Your task to perform on an android device: turn vacation reply on in the gmail app Image 0: 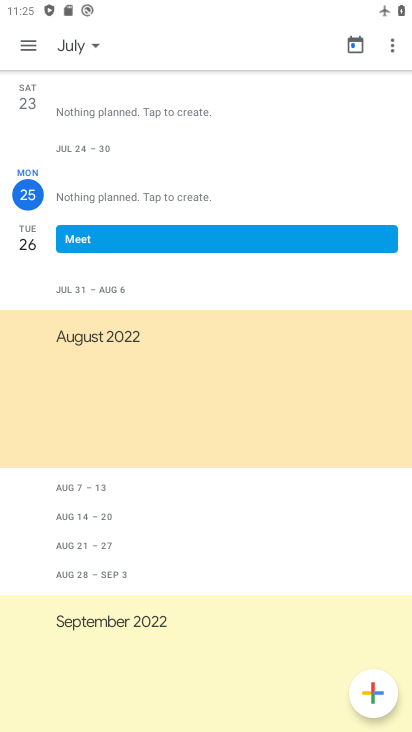
Step 0: press back button
Your task to perform on an android device: turn vacation reply on in the gmail app Image 1: 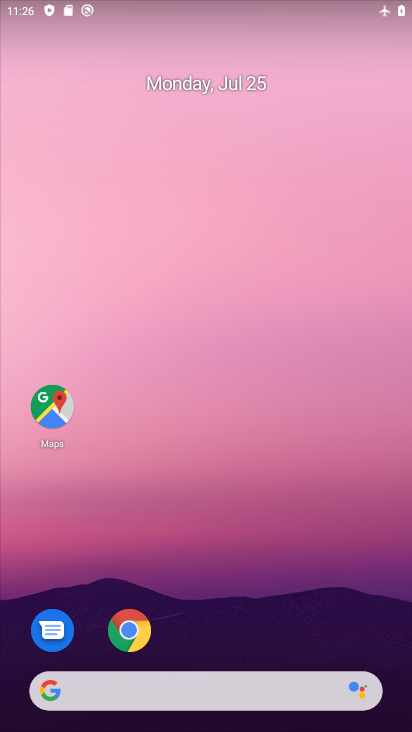
Step 1: drag from (228, 652) to (242, 276)
Your task to perform on an android device: turn vacation reply on in the gmail app Image 2: 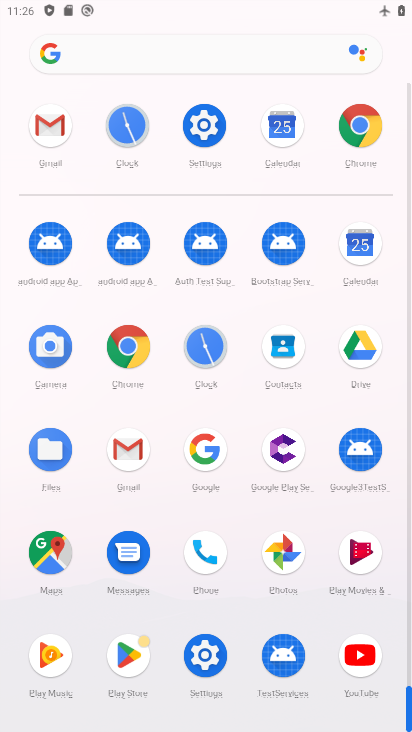
Step 2: click (135, 449)
Your task to perform on an android device: turn vacation reply on in the gmail app Image 3: 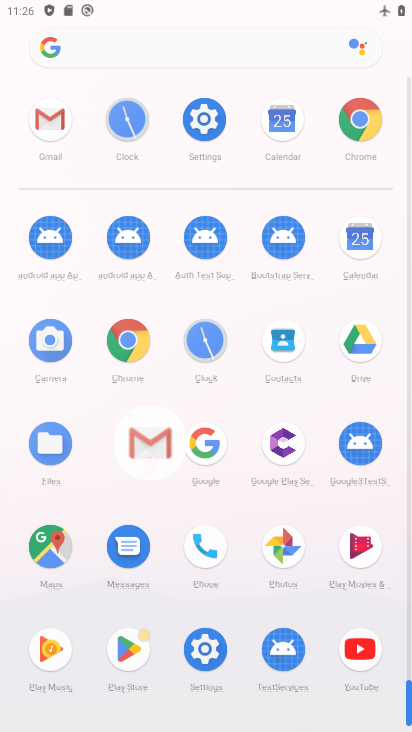
Step 3: click (134, 459)
Your task to perform on an android device: turn vacation reply on in the gmail app Image 4: 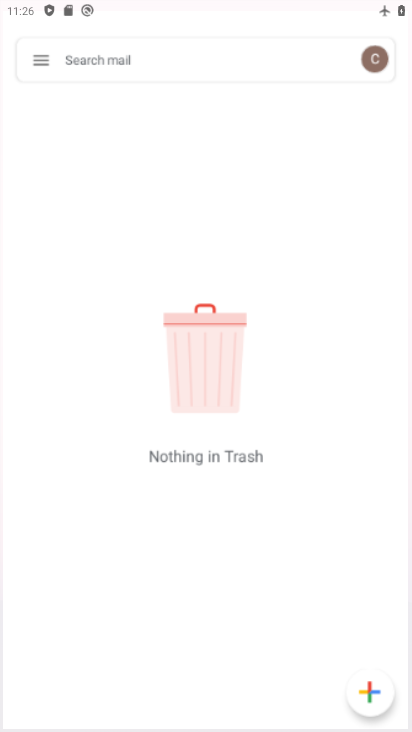
Step 4: click (138, 456)
Your task to perform on an android device: turn vacation reply on in the gmail app Image 5: 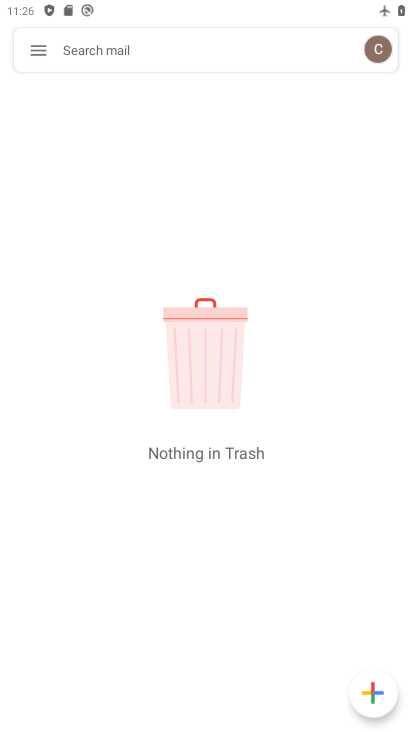
Step 5: click (139, 453)
Your task to perform on an android device: turn vacation reply on in the gmail app Image 6: 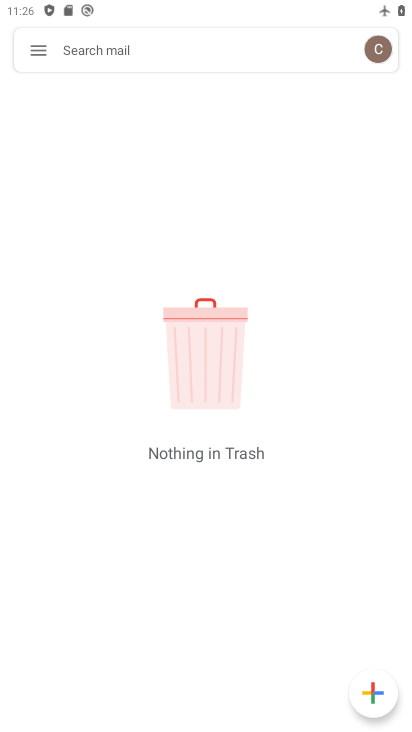
Step 6: click (43, 51)
Your task to perform on an android device: turn vacation reply on in the gmail app Image 7: 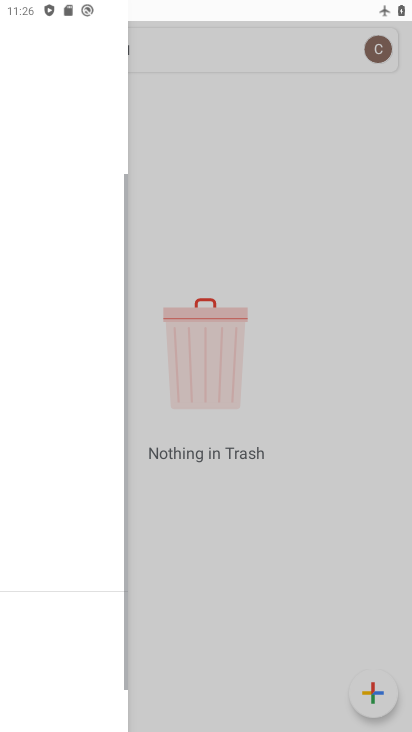
Step 7: click (37, 51)
Your task to perform on an android device: turn vacation reply on in the gmail app Image 8: 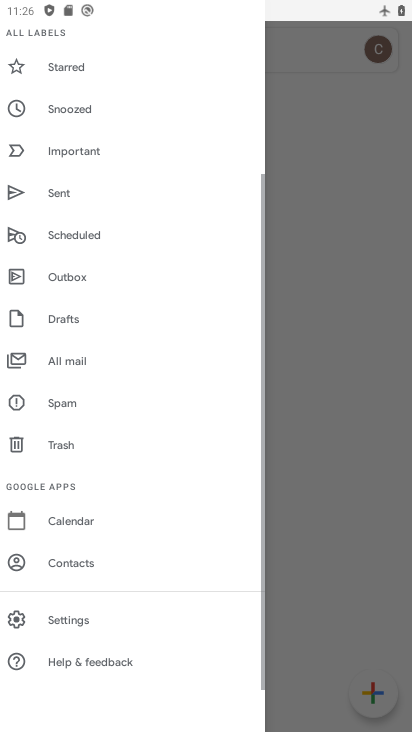
Step 8: click (37, 51)
Your task to perform on an android device: turn vacation reply on in the gmail app Image 9: 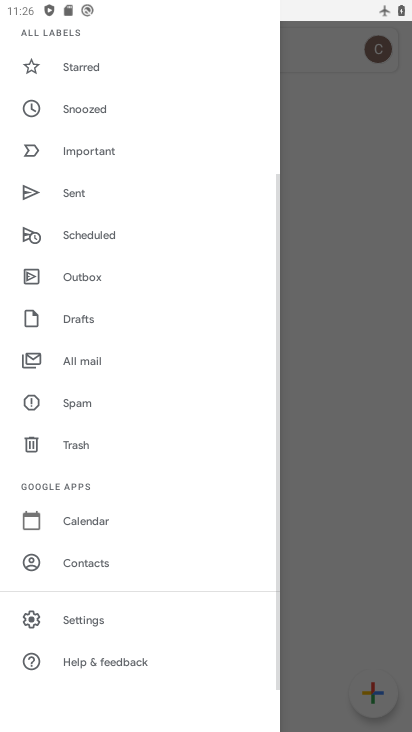
Step 9: click (70, 618)
Your task to perform on an android device: turn vacation reply on in the gmail app Image 10: 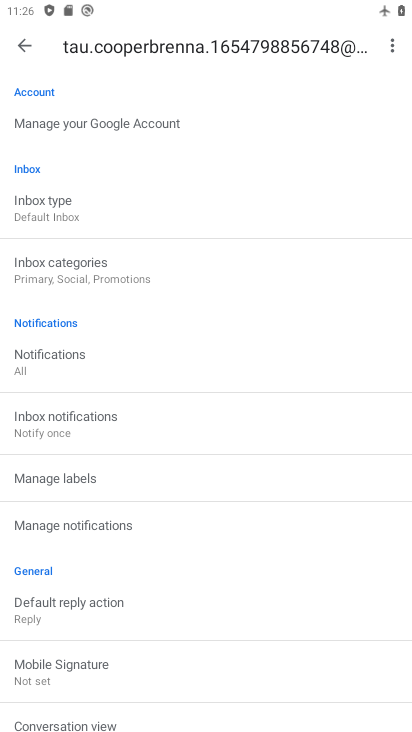
Step 10: drag from (74, 647) to (63, 151)
Your task to perform on an android device: turn vacation reply on in the gmail app Image 11: 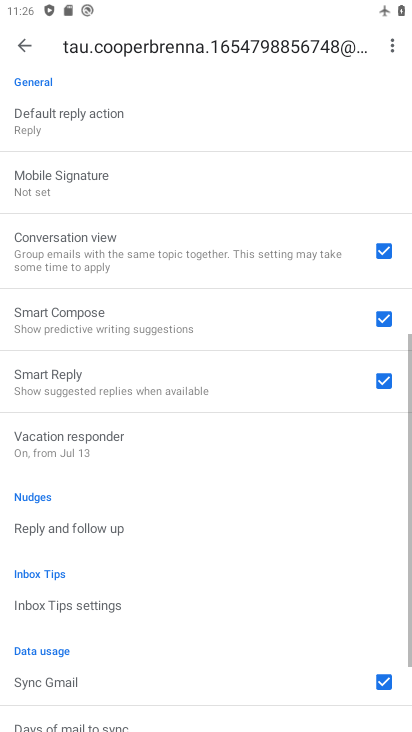
Step 11: drag from (88, 487) to (88, 222)
Your task to perform on an android device: turn vacation reply on in the gmail app Image 12: 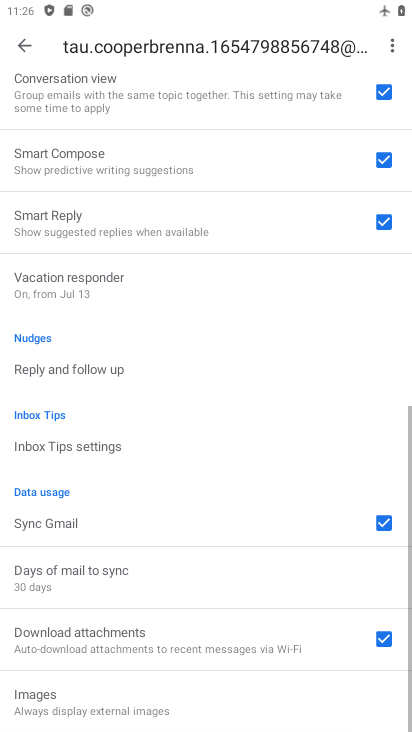
Step 12: drag from (91, 526) to (94, 352)
Your task to perform on an android device: turn vacation reply on in the gmail app Image 13: 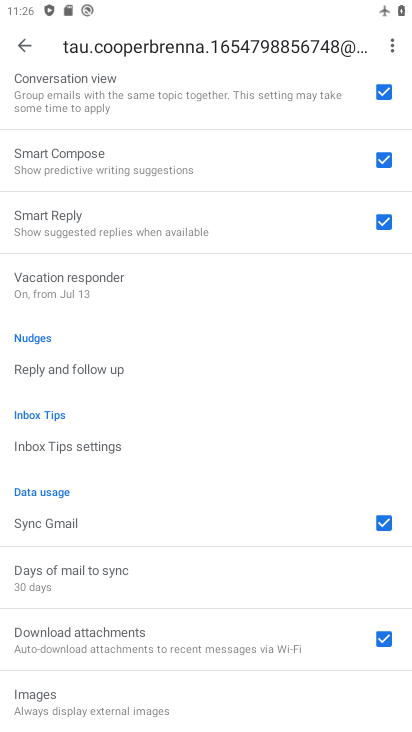
Step 13: click (84, 282)
Your task to perform on an android device: turn vacation reply on in the gmail app Image 14: 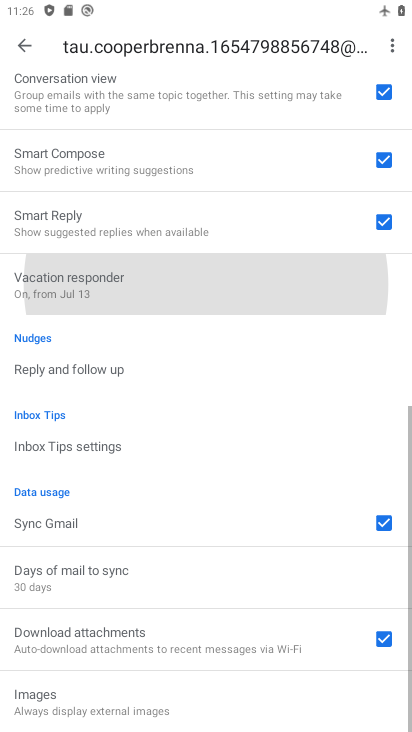
Step 14: click (84, 282)
Your task to perform on an android device: turn vacation reply on in the gmail app Image 15: 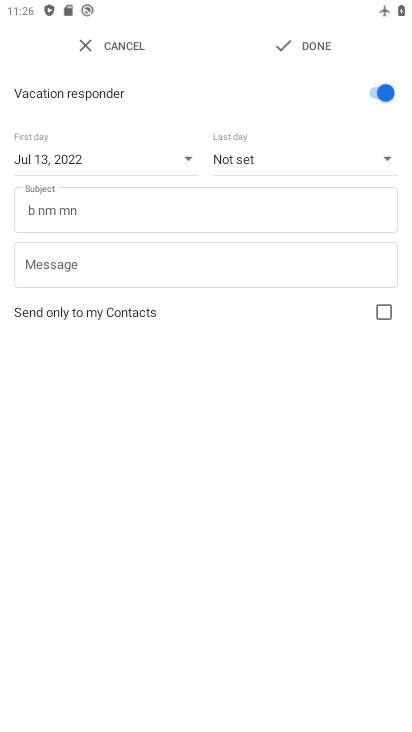
Step 15: task complete